Your task to perform on an android device: find snoozed emails in the gmail app Image 0: 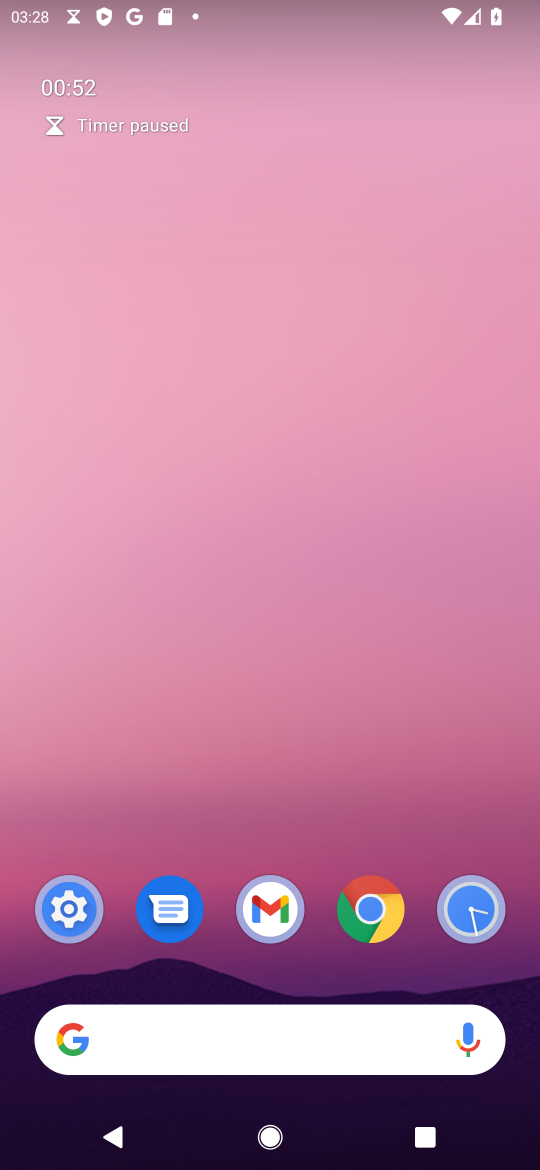
Step 0: click (256, 916)
Your task to perform on an android device: find snoozed emails in the gmail app Image 1: 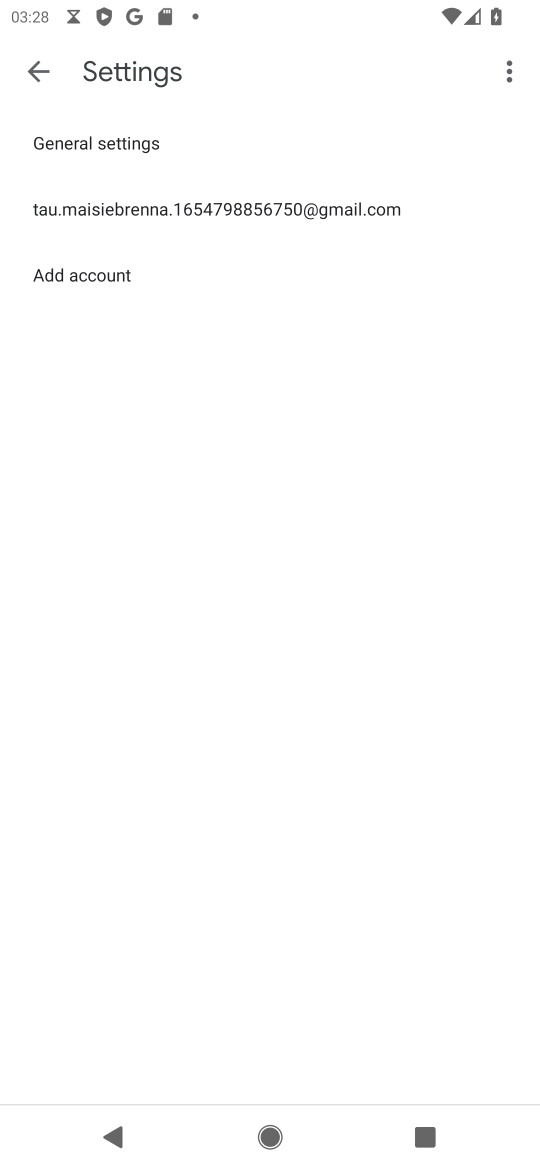
Step 1: click (31, 71)
Your task to perform on an android device: find snoozed emails in the gmail app Image 2: 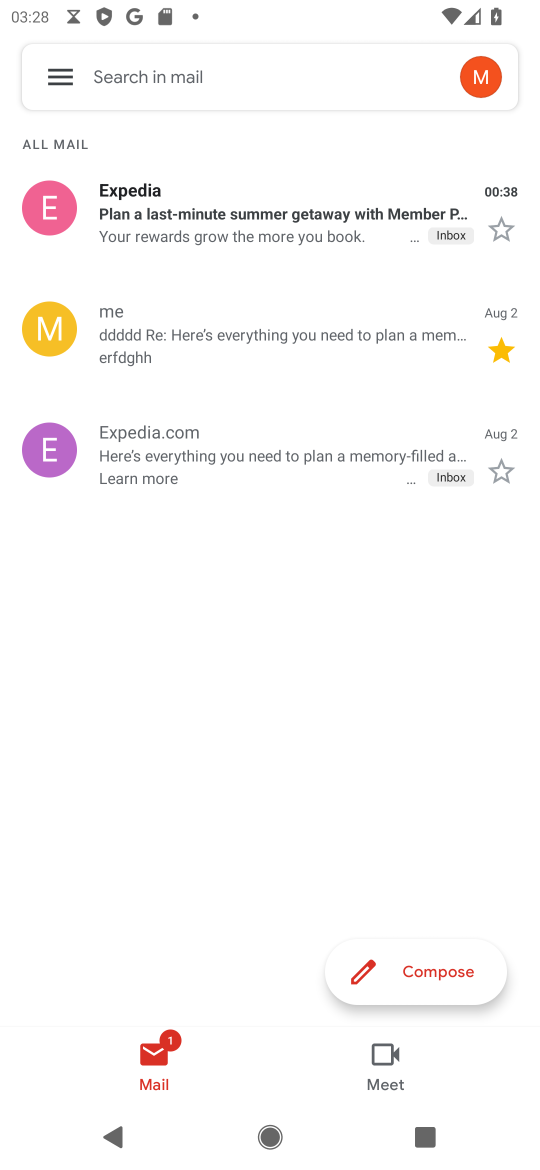
Step 2: click (64, 82)
Your task to perform on an android device: find snoozed emails in the gmail app Image 3: 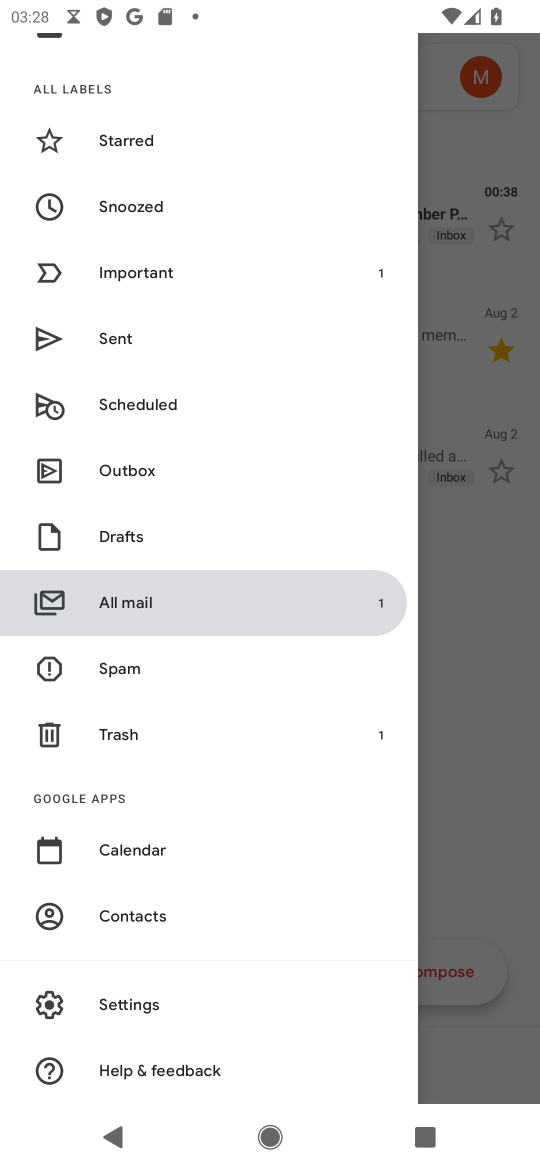
Step 3: click (139, 205)
Your task to perform on an android device: find snoozed emails in the gmail app Image 4: 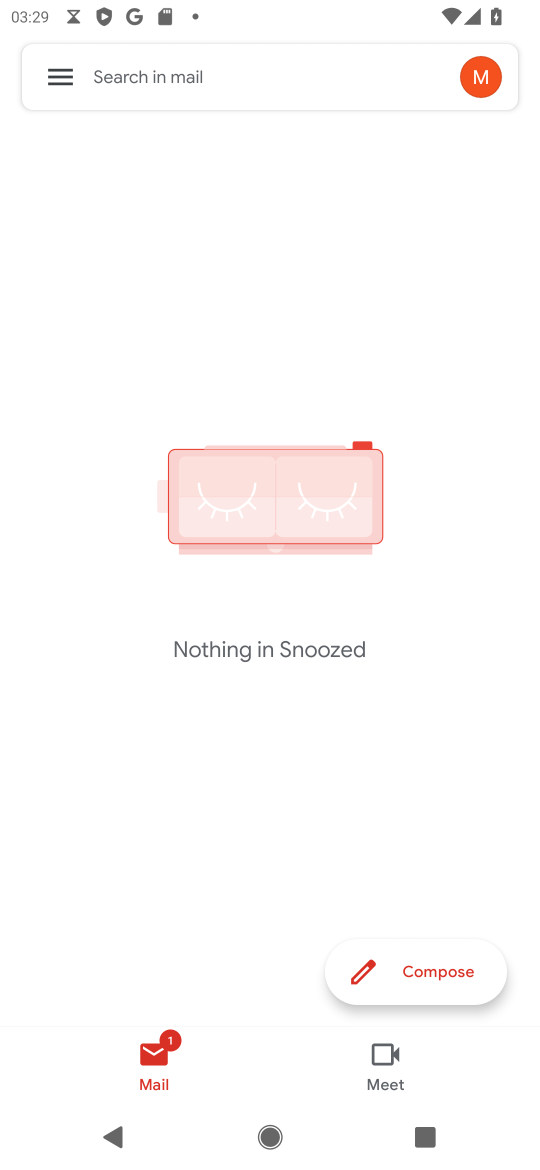
Step 4: task complete